Your task to perform on an android device: Toggle the flashlight Image 0: 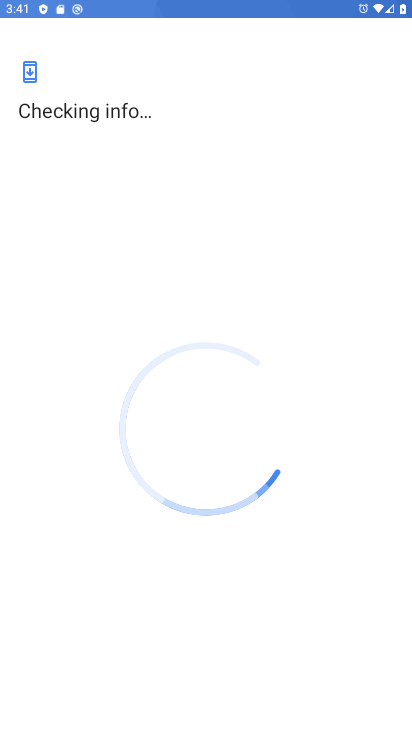
Step 0: press home button
Your task to perform on an android device: Toggle the flashlight Image 1: 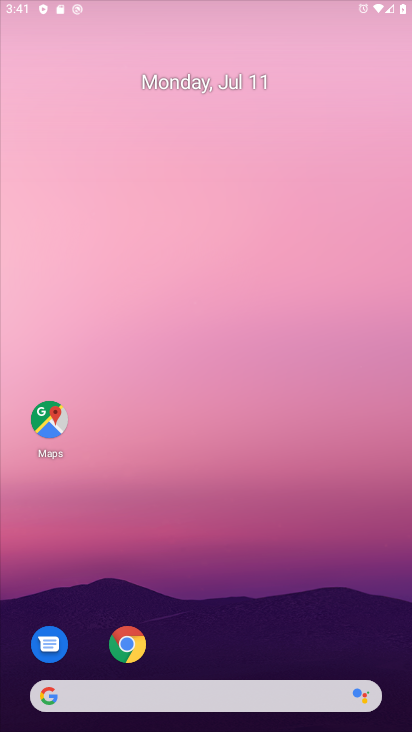
Step 1: task complete